Your task to perform on an android device: Open notification settings Image 0: 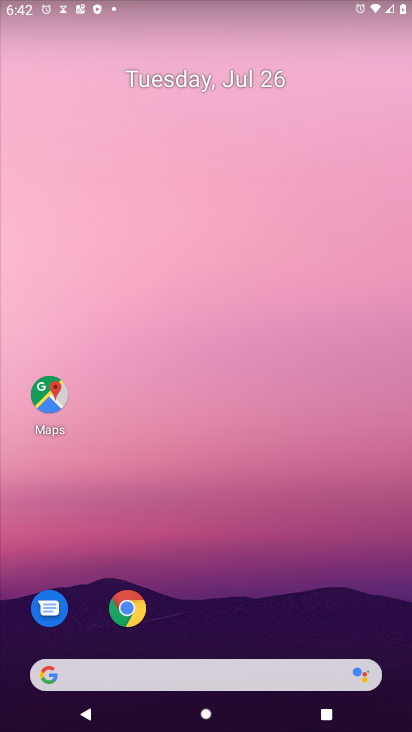
Step 0: drag from (167, 644) to (257, 1)
Your task to perform on an android device: Open notification settings Image 1: 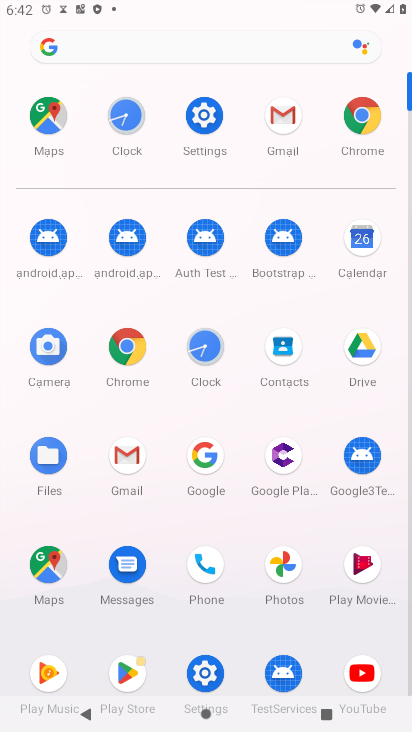
Step 1: click (208, 135)
Your task to perform on an android device: Open notification settings Image 2: 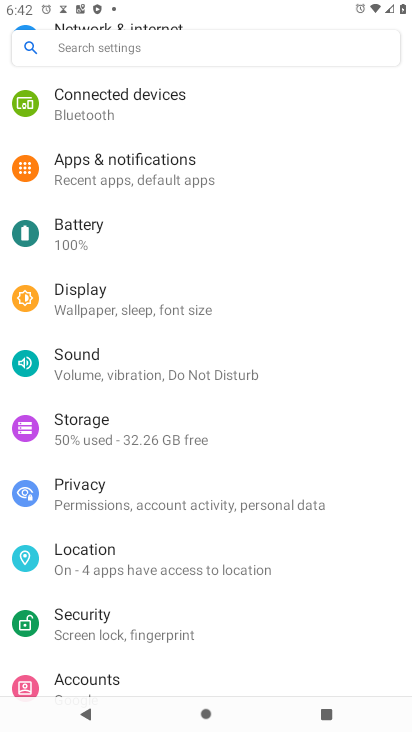
Step 2: click (135, 169)
Your task to perform on an android device: Open notification settings Image 3: 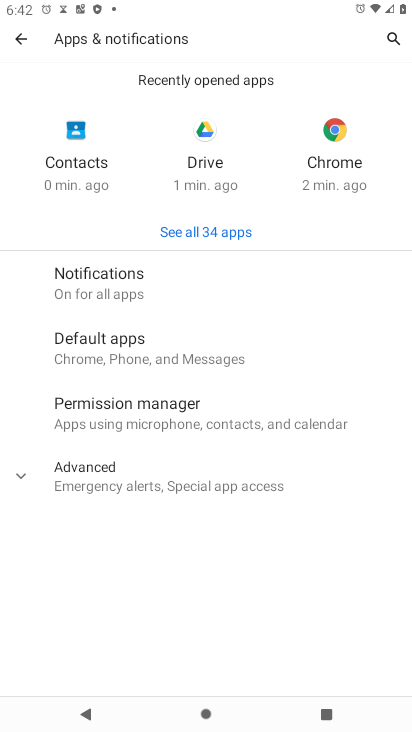
Step 3: click (112, 278)
Your task to perform on an android device: Open notification settings Image 4: 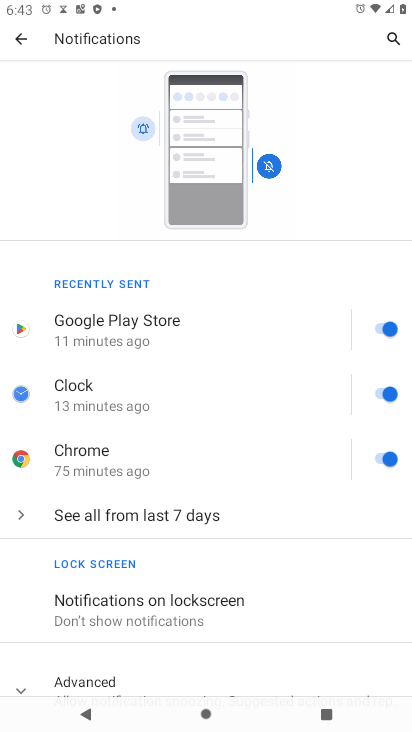
Step 4: task complete